Your task to perform on an android device: turn notification dots off Image 0: 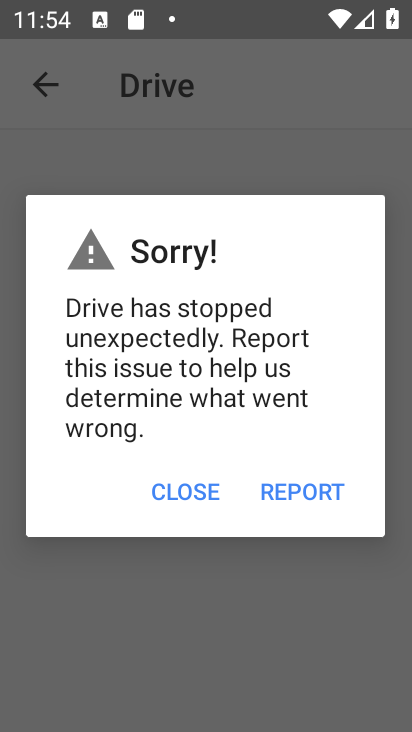
Step 0: press home button
Your task to perform on an android device: turn notification dots off Image 1: 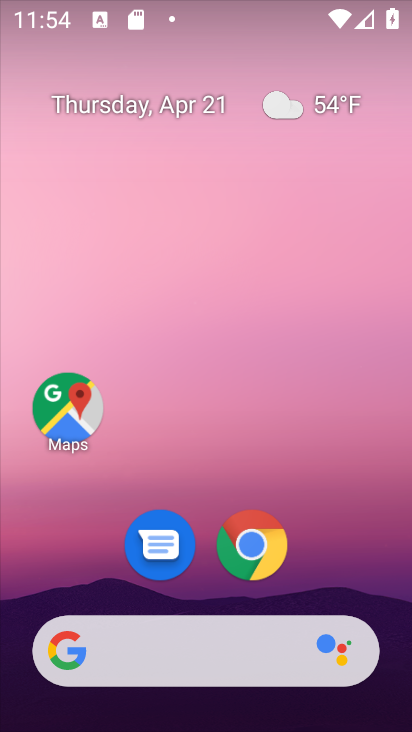
Step 1: drag from (254, 461) to (223, 133)
Your task to perform on an android device: turn notification dots off Image 2: 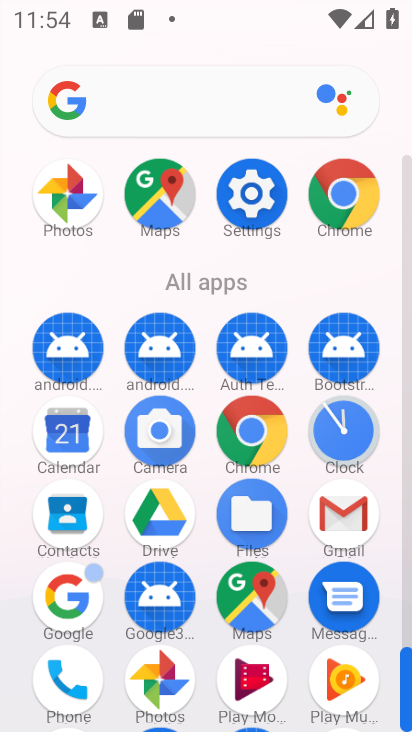
Step 2: click (252, 223)
Your task to perform on an android device: turn notification dots off Image 3: 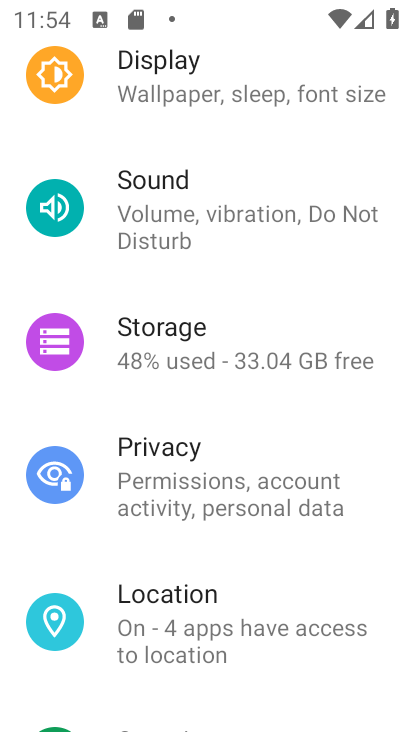
Step 3: drag from (280, 213) to (324, 671)
Your task to perform on an android device: turn notification dots off Image 4: 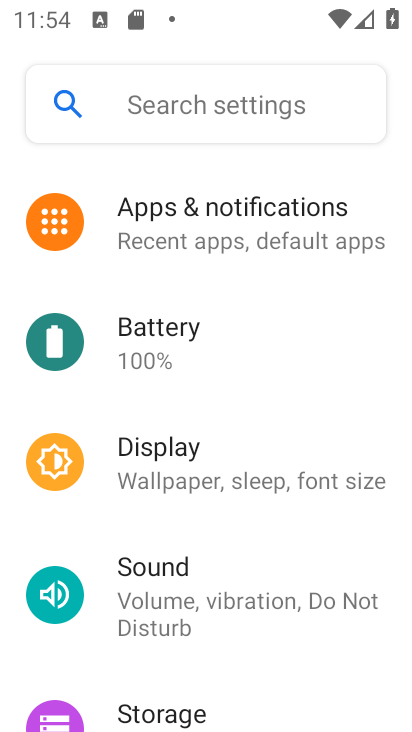
Step 4: click (271, 243)
Your task to perform on an android device: turn notification dots off Image 5: 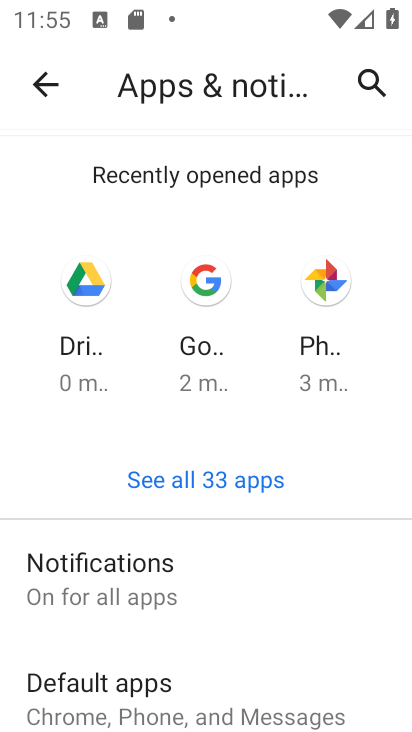
Step 5: click (204, 595)
Your task to perform on an android device: turn notification dots off Image 6: 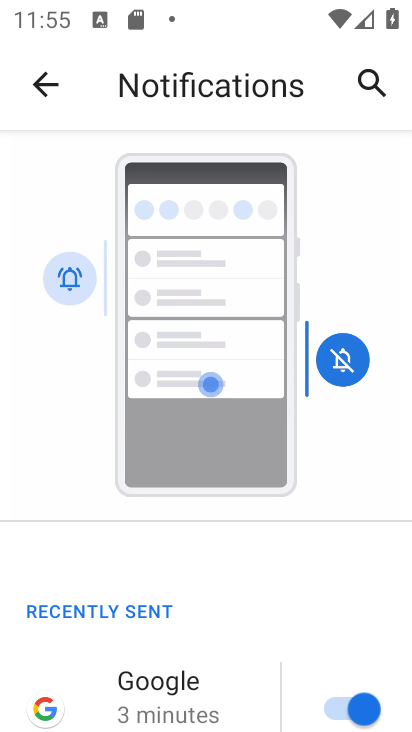
Step 6: drag from (264, 650) to (246, 5)
Your task to perform on an android device: turn notification dots off Image 7: 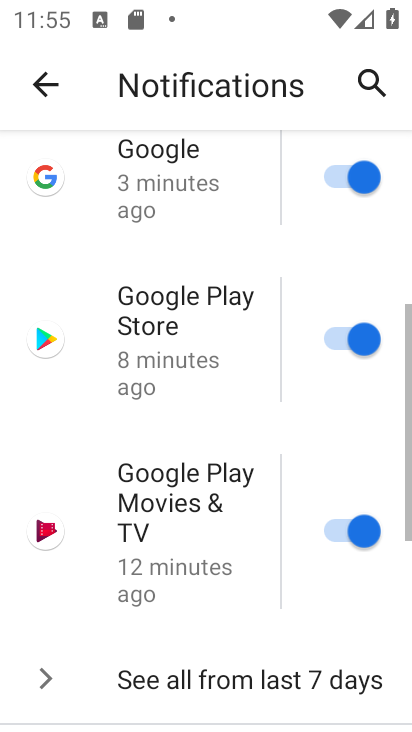
Step 7: drag from (243, 539) to (240, 86)
Your task to perform on an android device: turn notification dots off Image 8: 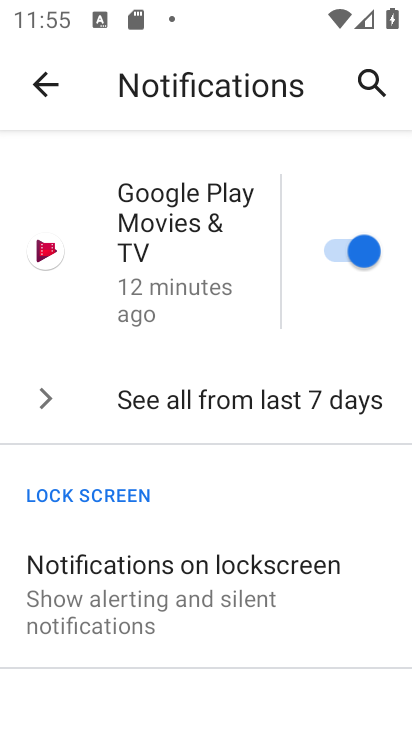
Step 8: drag from (168, 641) to (214, 178)
Your task to perform on an android device: turn notification dots off Image 9: 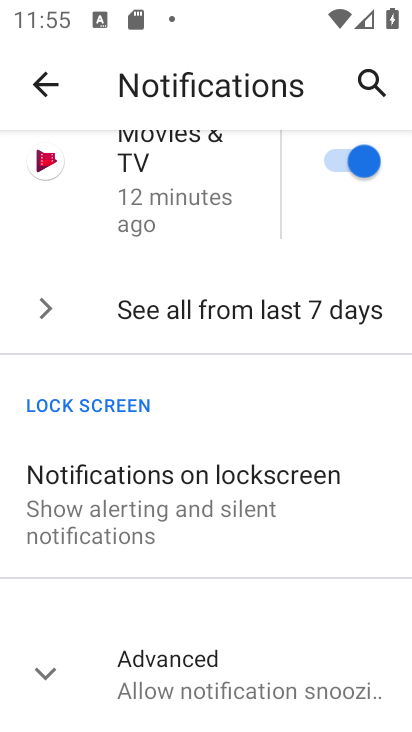
Step 9: click (214, 670)
Your task to perform on an android device: turn notification dots off Image 10: 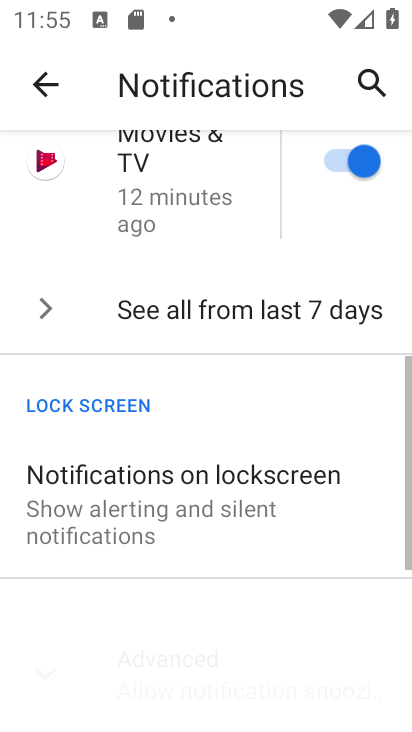
Step 10: drag from (211, 585) to (210, 266)
Your task to perform on an android device: turn notification dots off Image 11: 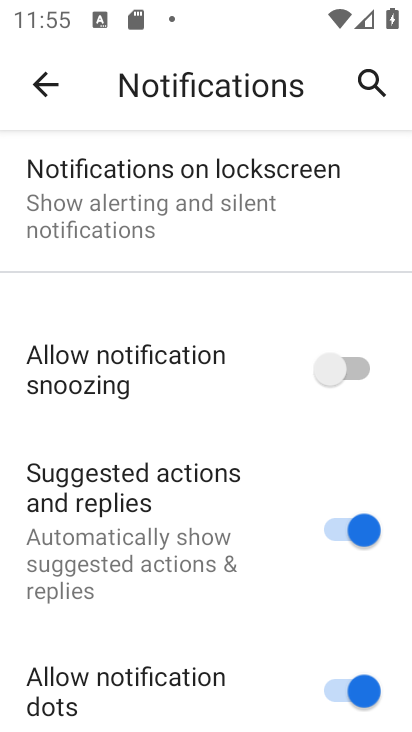
Step 11: drag from (230, 619) to (289, 328)
Your task to perform on an android device: turn notification dots off Image 12: 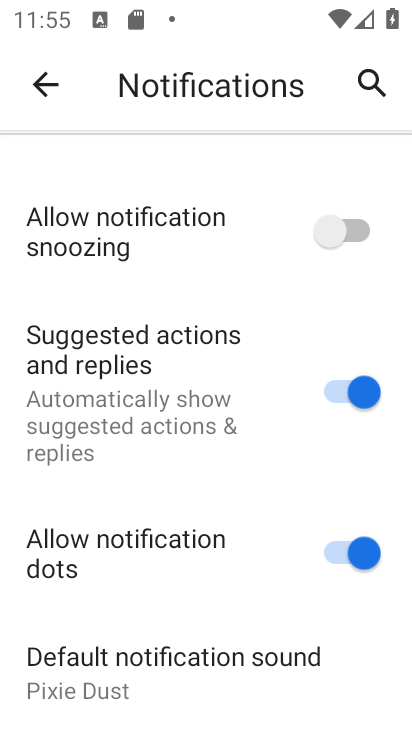
Step 12: click (338, 553)
Your task to perform on an android device: turn notification dots off Image 13: 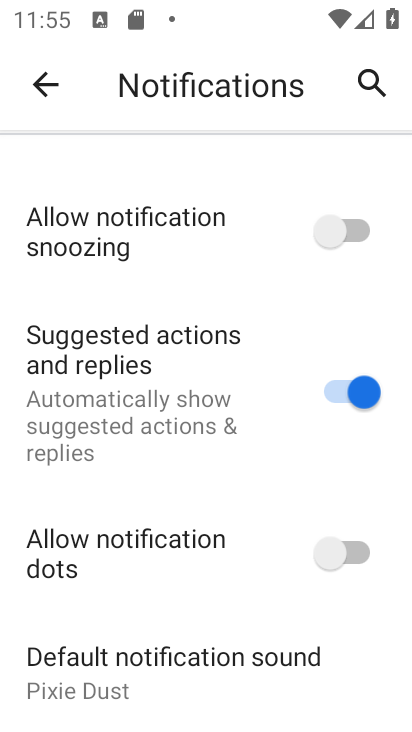
Step 13: task complete